Your task to perform on an android device: delete browsing data in the chrome app Image 0: 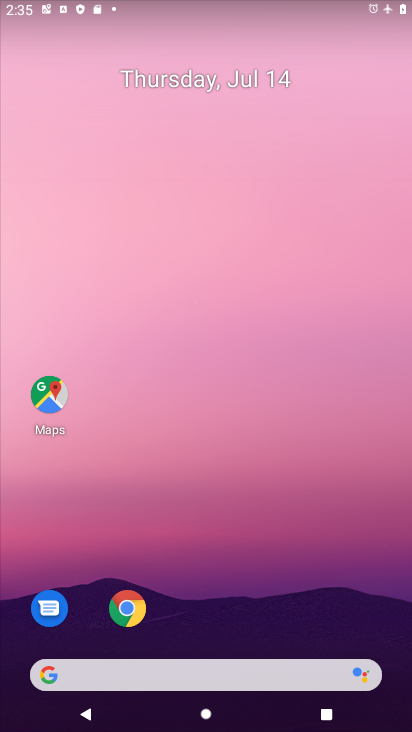
Step 0: click (127, 608)
Your task to perform on an android device: delete browsing data in the chrome app Image 1: 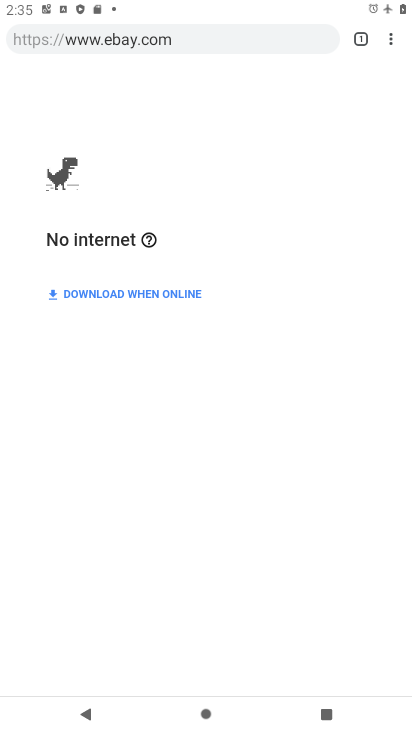
Step 1: click (391, 45)
Your task to perform on an android device: delete browsing data in the chrome app Image 2: 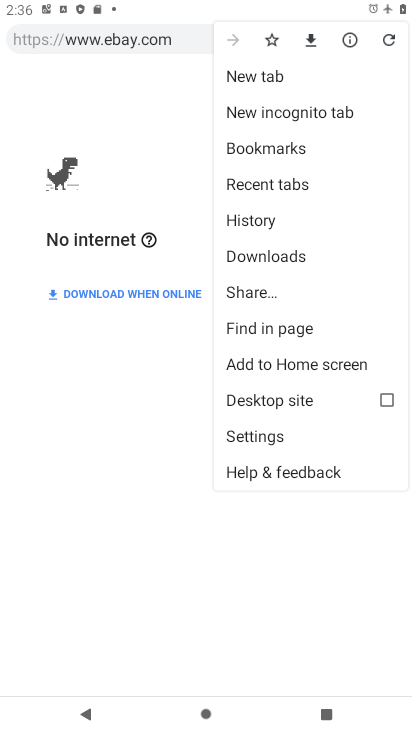
Step 2: click (253, 214)
Your task to perform on an android device: delete browsing data in the chrome app Image 3: 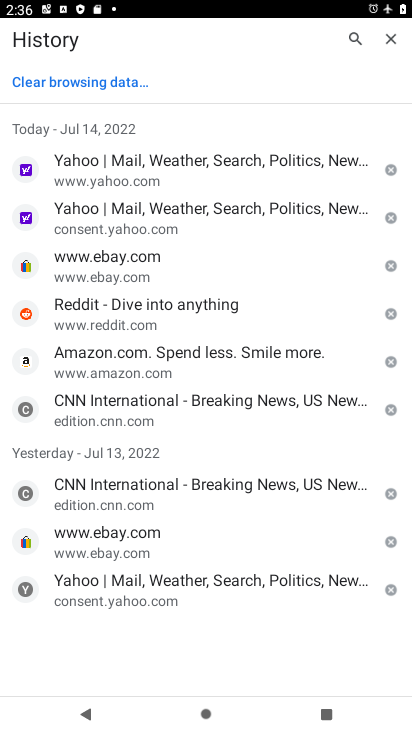
Step 3: click (65, 85)
Your task to perform on an android device: delete browsing data in the chrome app Image 4: 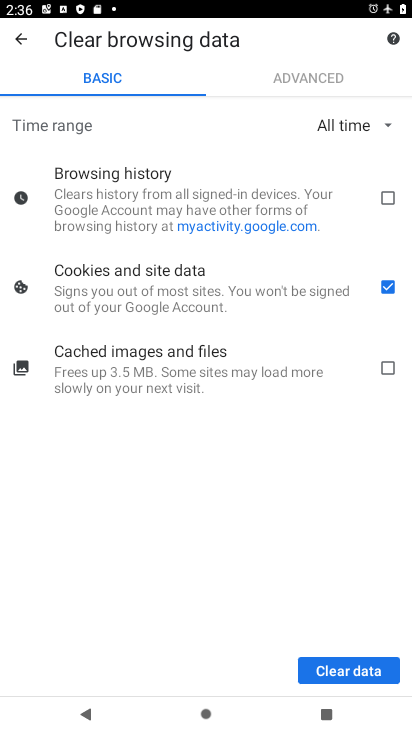
Step 4: click (389, 196)
Your task to perform on an android device: delete browsing data in the chrome app Image 5: 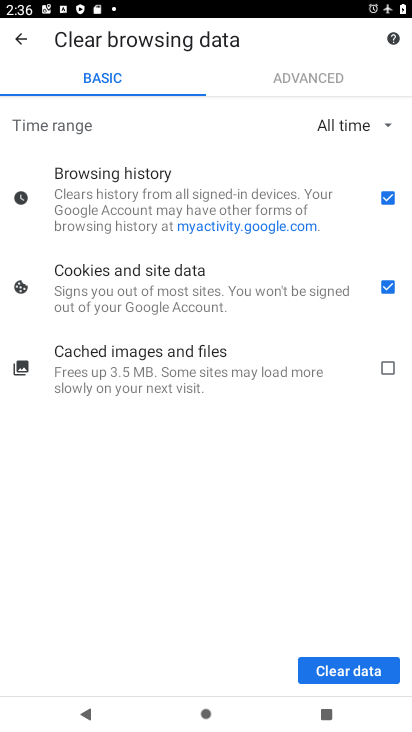
Step 5: click (388, 286)
Your task to perform on an android device: delete browsing data in the chrome app Image 6: 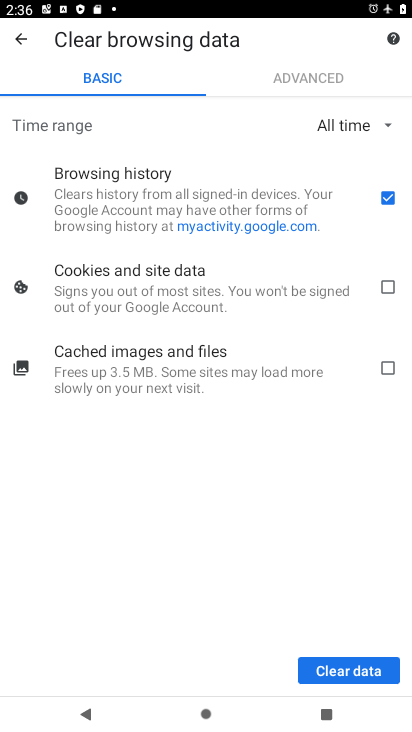
Step 6: click (352, 672)
Your task to perform on an android device: delete browsing data in the chrome app Image 7: 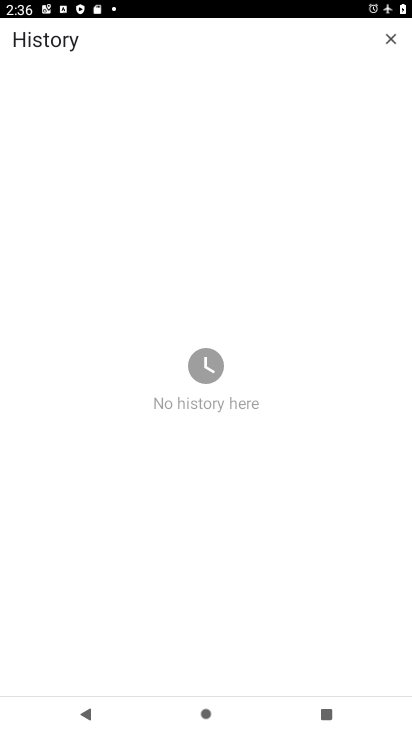
Step 7: task complete